Your task to perform on an android device: Go to Android settings Image 0: 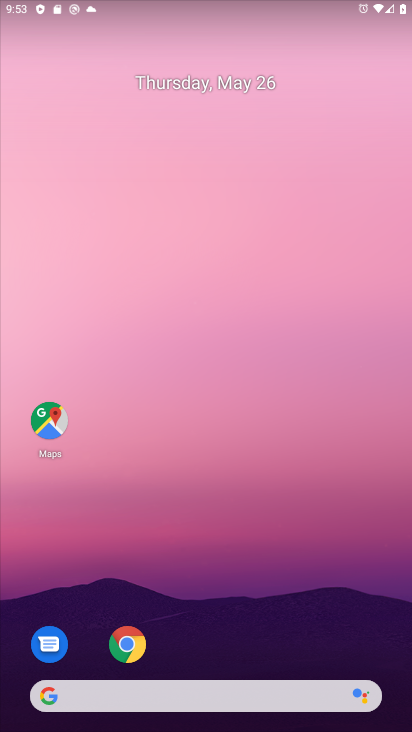
Step 0: drag from (212, 649) to (223, 243)
Your task to perform on an android device: Go to Android settings Image 1: 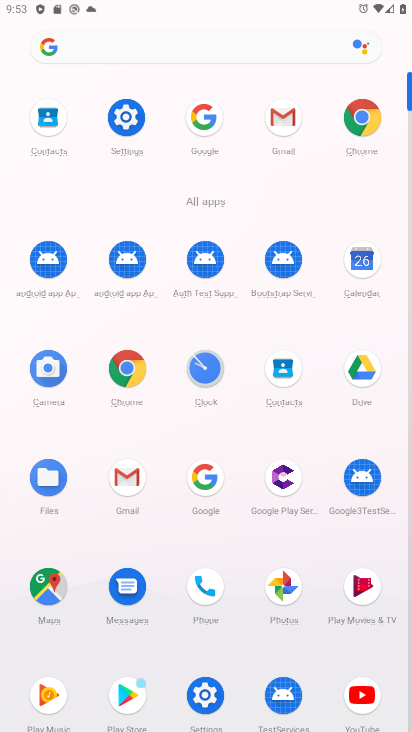
Step 1: click (133, 123)
Your task to perform on an android device: Go to Android settings Image 2: 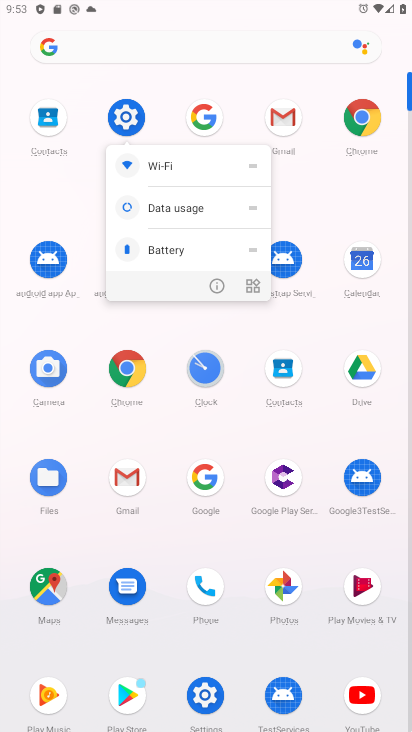
Step 2: click (133, 123)
Your task to perform on an android device: Go to Android settings Image 3: 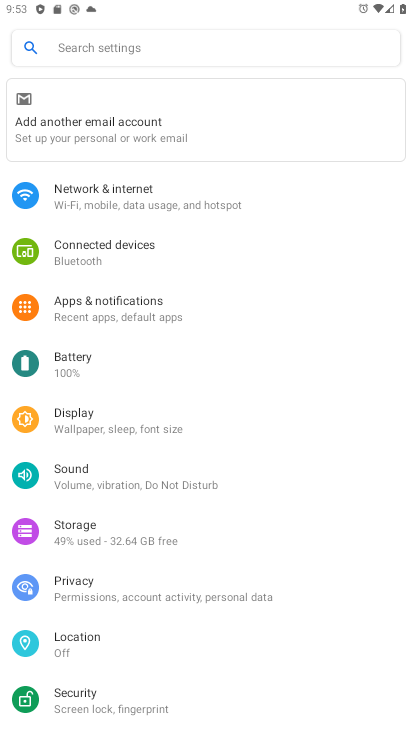
Step 3: task complete